Your task to perform on an android device: What's on the menu at Five Guys? Image 0: 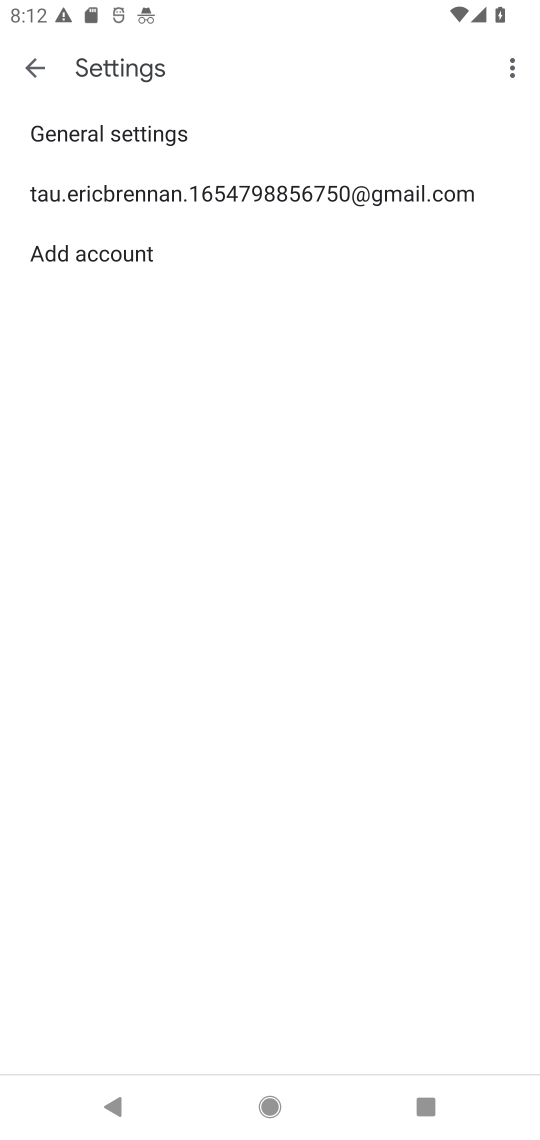
Step 0: press home button
Your task to perform on an android device: What's on the menu at Five Guys? Image 1: 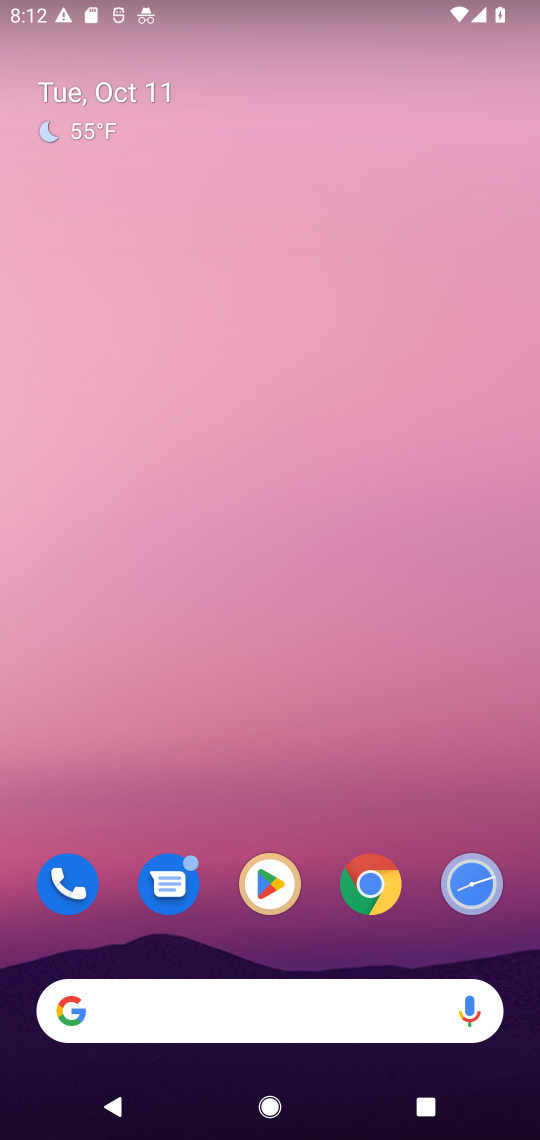
Step 1: drag from (328, 881) to (333, 63)
Your task to perform on an android device: What's on the menu at Five Guys? Image 2: 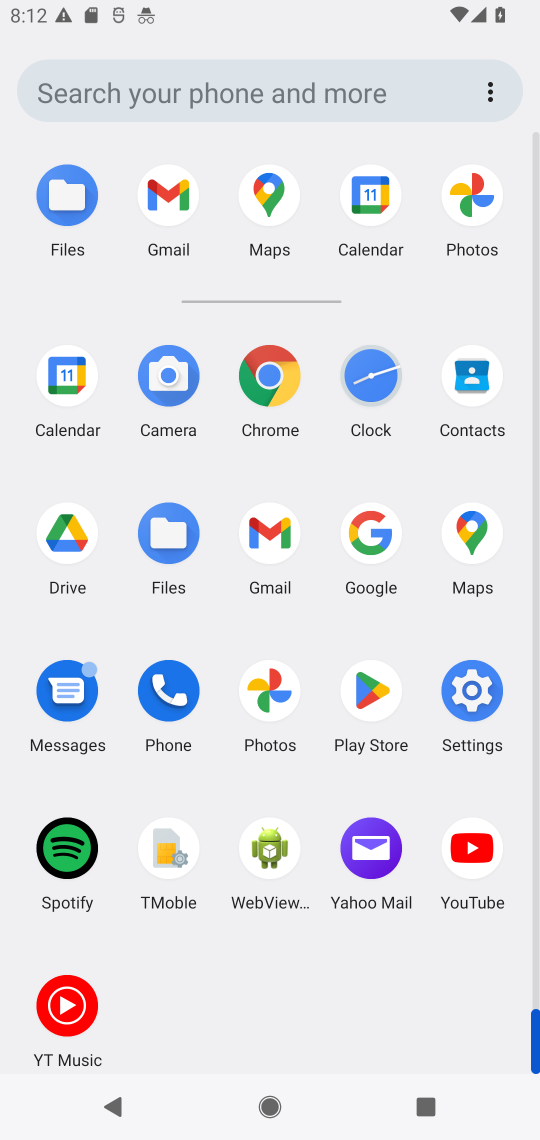
Step 2: click (371, 538)
Your task to perform on an android device: What's on the menu at Five Guys? Image 3: 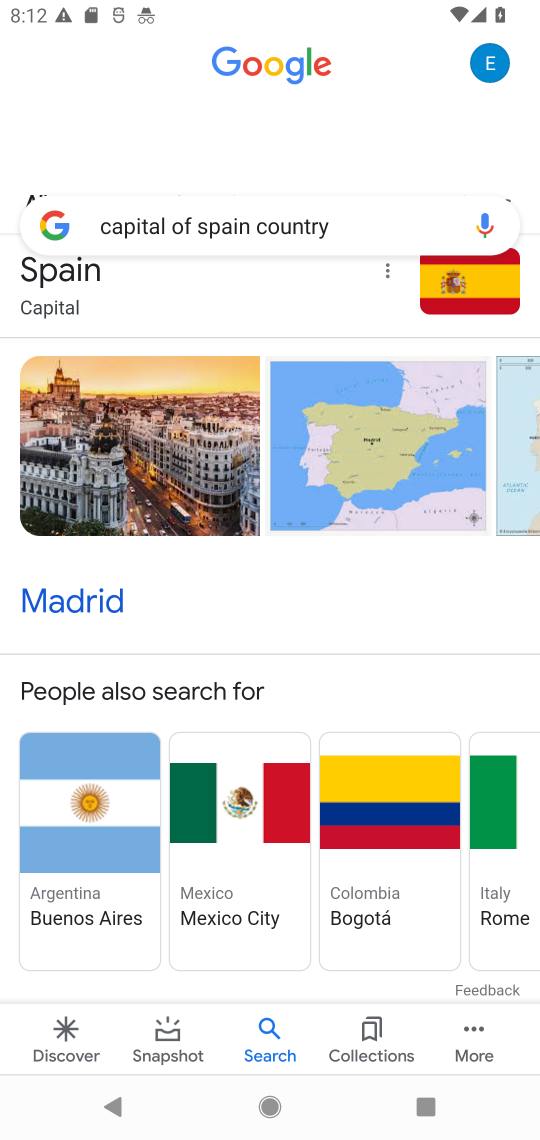
Step 3: click (341, 230)
Your task to perform on an android device: What's on the menu at Five Guys? Image 4: 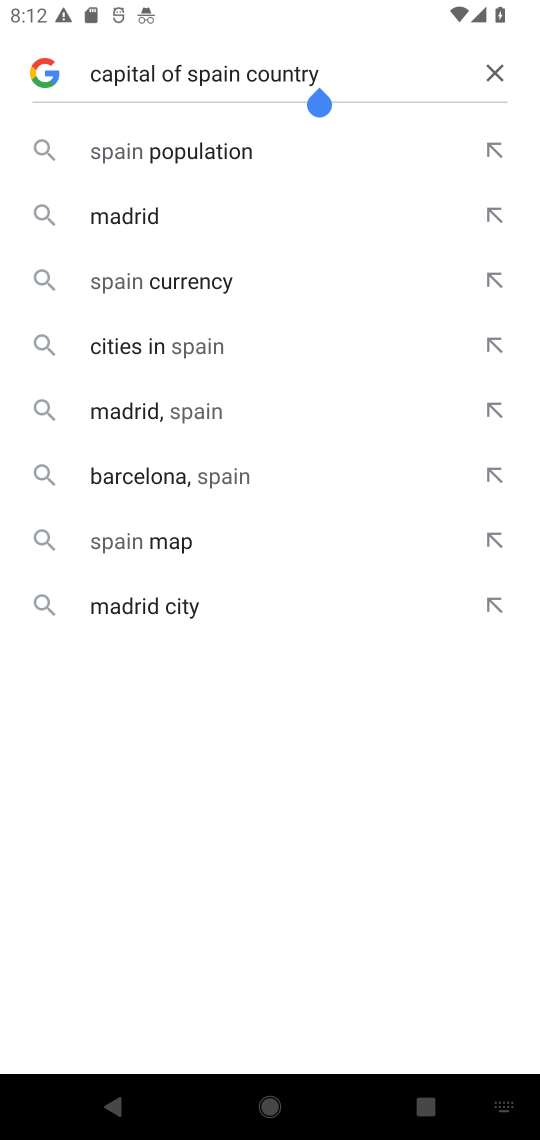
Step 4: click (489, 61)
Your task to perform on an android device: What's on the menu at Five Guys? Image 5: 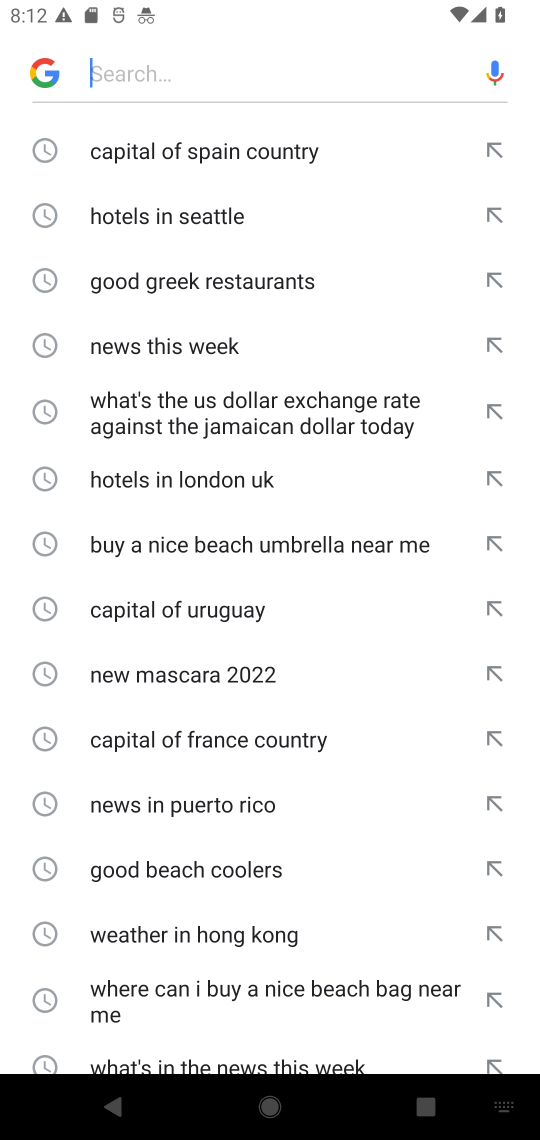
Step 5: type "What's on the menu at Five Guys?"
Your task to perform on an android device: What's on the menu at Five Guys? Image 6: 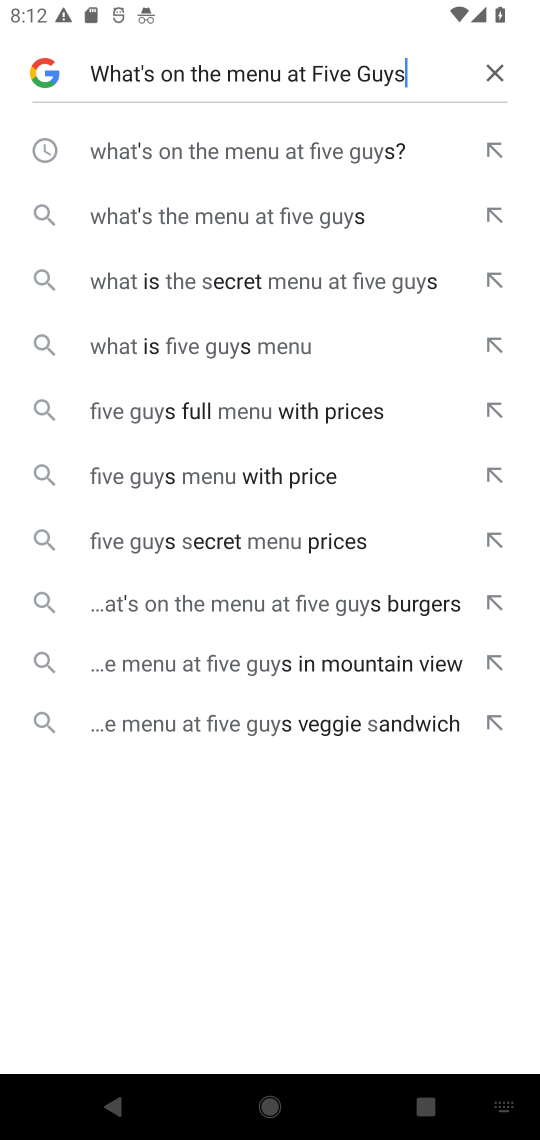
Step 6: type ""
Your task to perform on an android device: What's on the menu at Five Guys? Image 7: 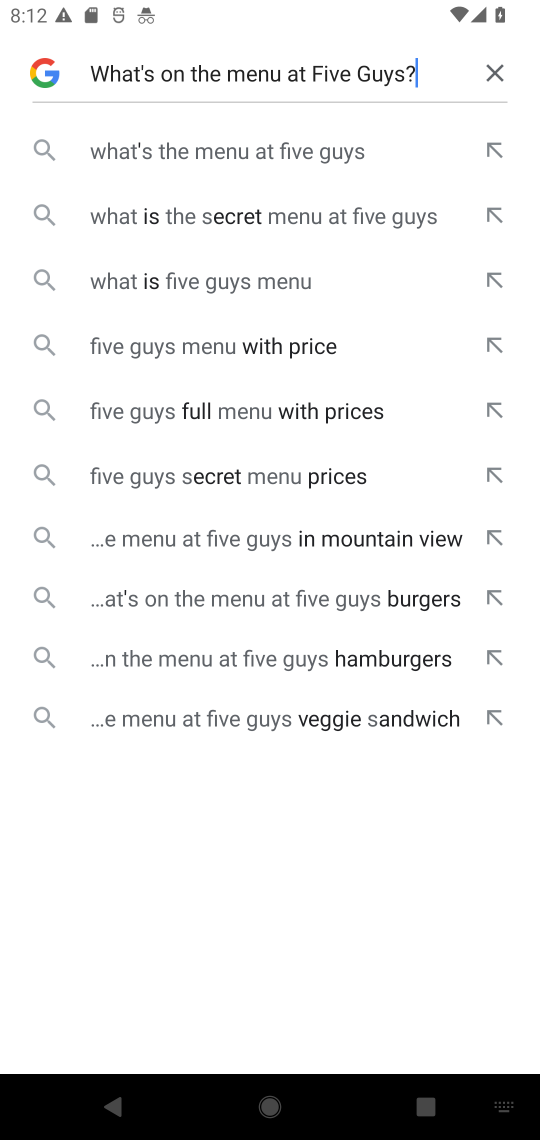
Step 7: click (258, 158)
Your task to perform on an android device: What's on the menu at Five Guys? Image 8: 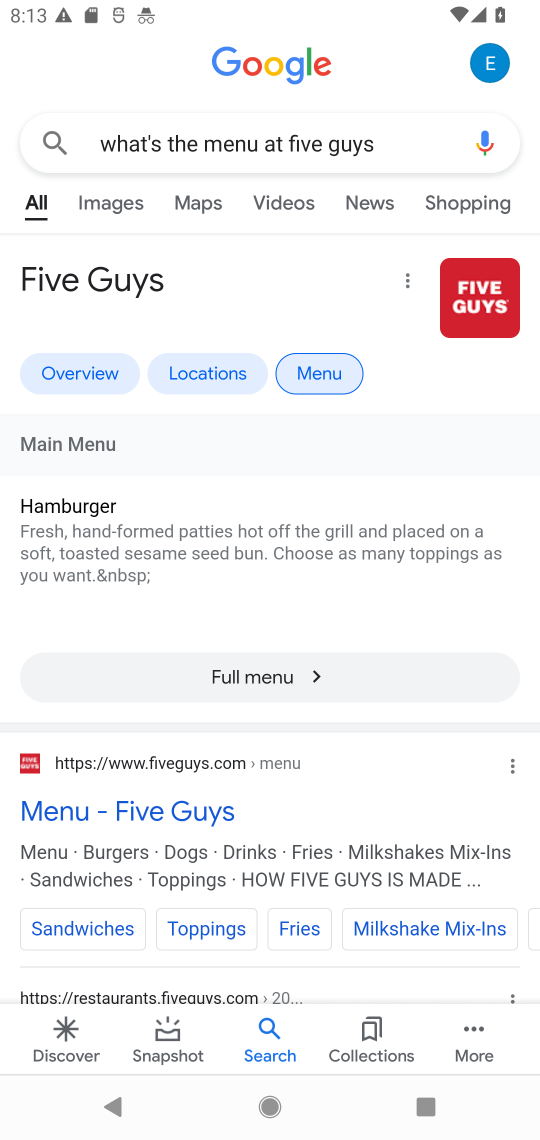
Step 8: task complete